Your task to perform on an android device: turn smart compose on in the gmail app Image 0: 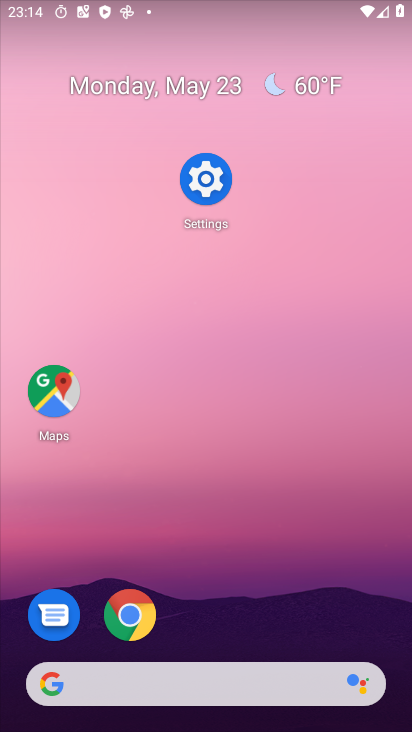
Step 0: drag from (192, 593) to (247, 35)
Your task to perform on an android device: turn smart compose on in the gmail app Image 1: 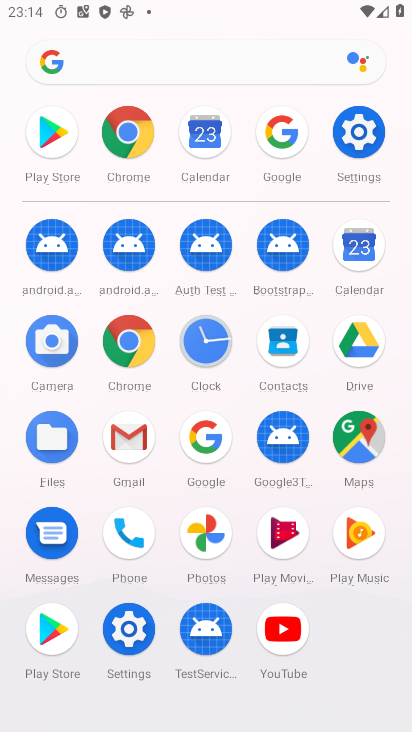
Step 1: click (123, 448)
Your task to perform on an android device: turn smart compose on in the gmail app Image 2: 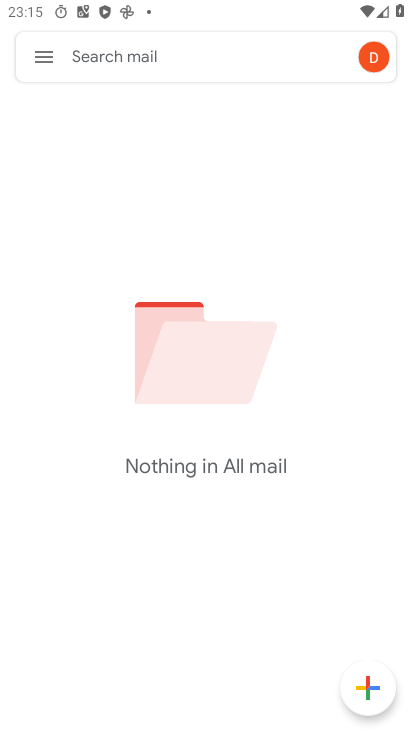
Step 2: click (38, 58)
Your task to perform on an android device: turn smart compose on in the gmail app Image 3: 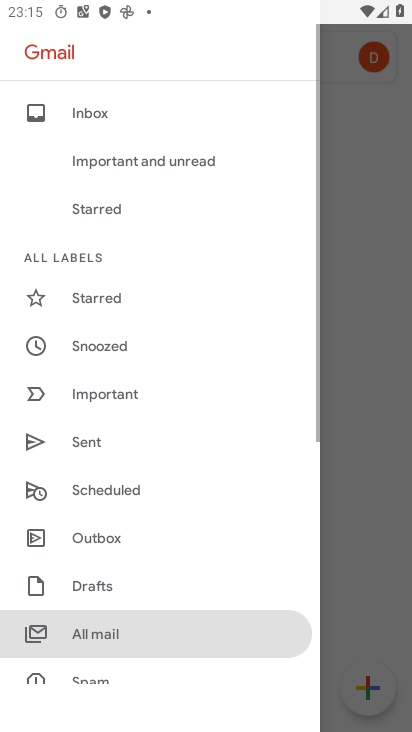
Step 3: drag from (171, 569) to (298, 12)
Your task to perform on an android device: turn smart compose on in the gmail app Image 4: 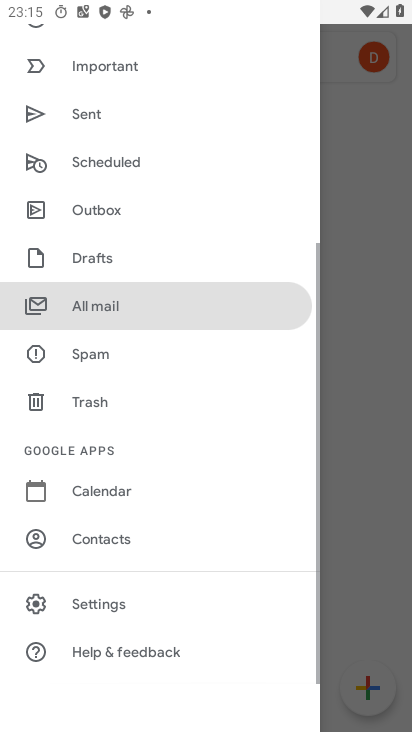
Step 4: click (118, 600)
Your task to perform on an android device: turn smart compose on in the gmail app Image 5: 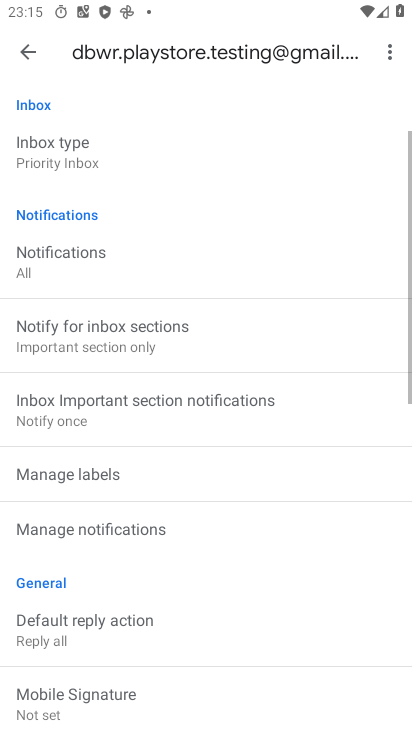
Step 5: task complete